Your task to perform on an android device: Do I have any events today? Image 0: 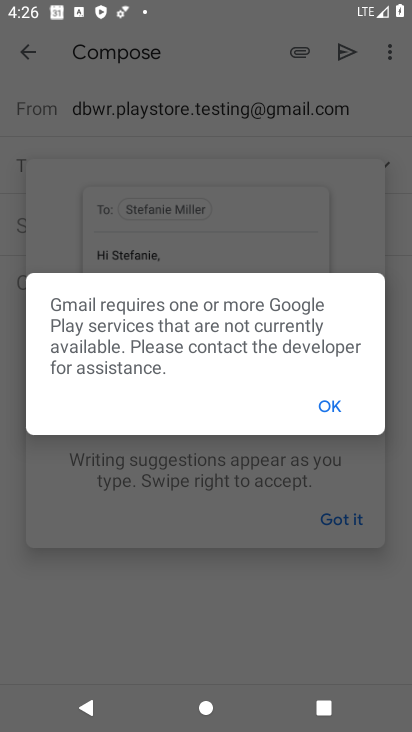
Step 0: click (327, 408)
Your task to perform on an android device: Do I have any events today? Image 1: 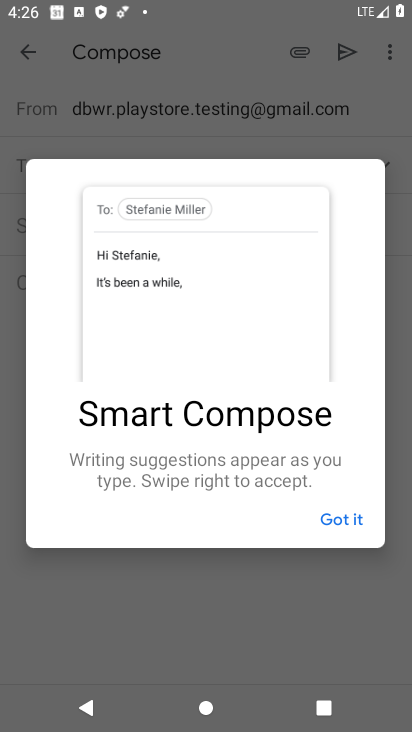
Step 1: click (352, 525)
Your task to perform on an android device: Do I have any events today? Image 2: 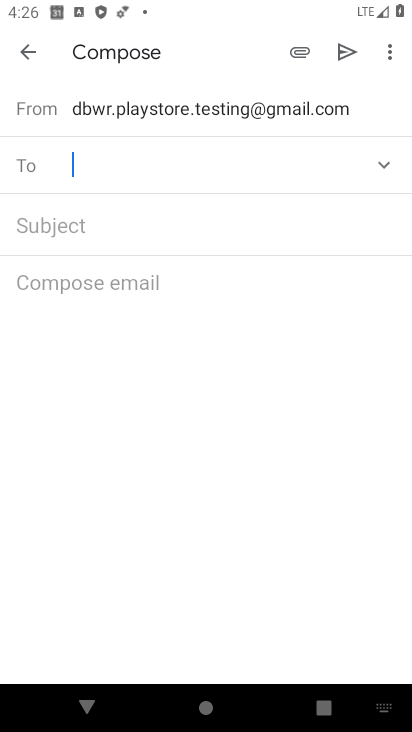
Step 2: press home button
Your task to perform on an android device: Do I have any events today? Image 3: 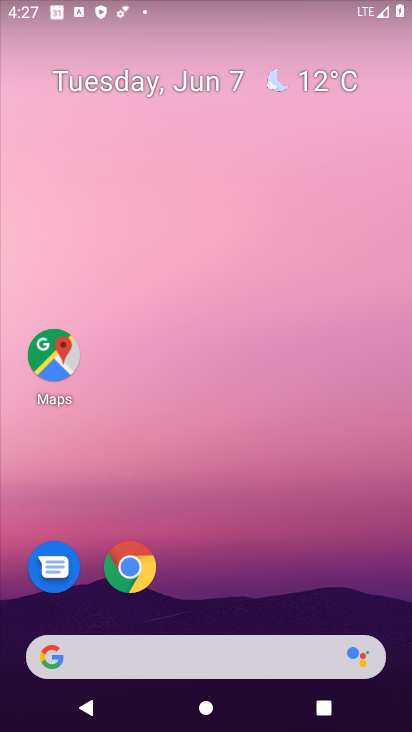
Step 3: drag from (248, 651) to (342, 100)
Your task to perform on an android device: Do I have any events today? Image 4: 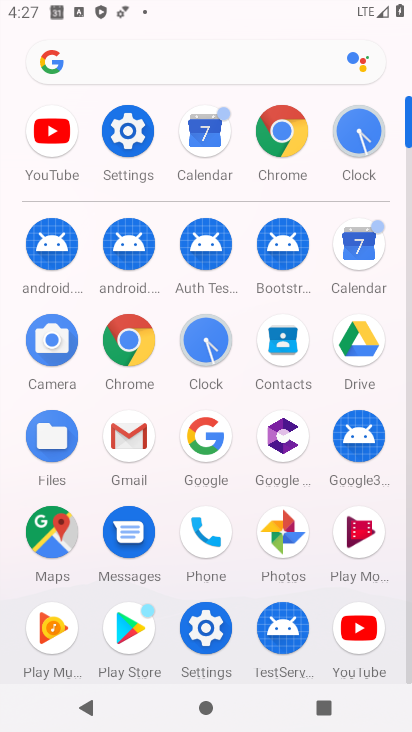
Step 4: click (350, 238)
Your task to perform on an android device: Do I have any events today? Image 5: 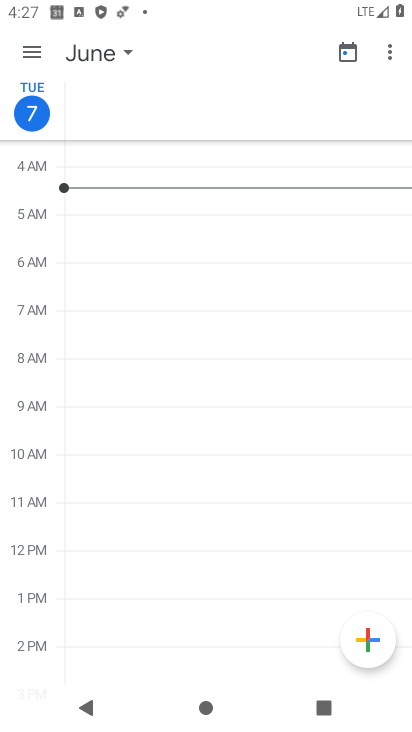
Step 5: click (118, 45)
Your task to perform on an android device: Do I have any events today? Image 6: 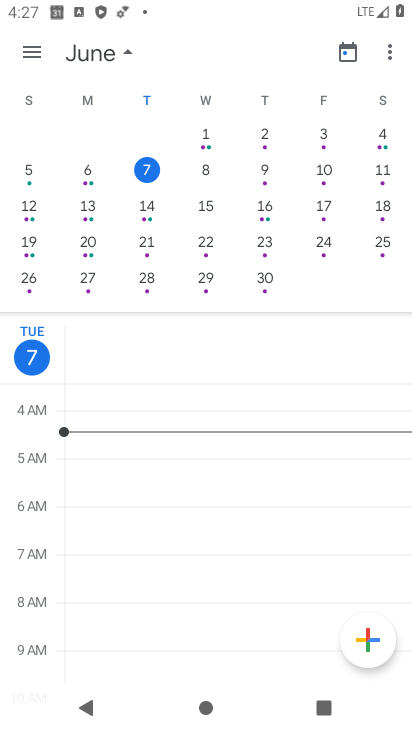
Step 6: click (150, 164)
Your task to perform on an android device: Do I have any events today? Image 7: 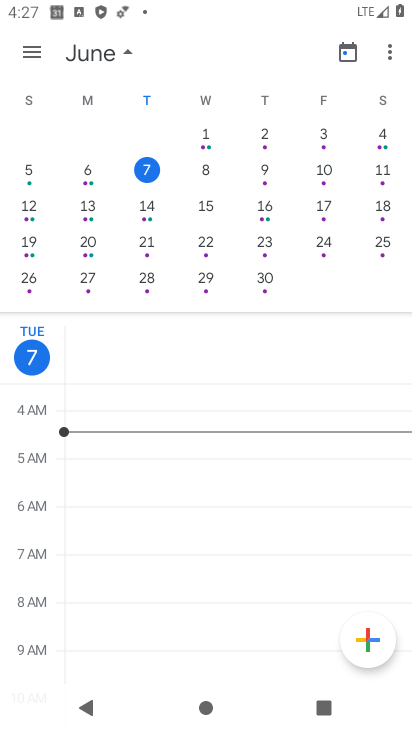
Step 7: task complete